Your task to perform on an android device: install app "AliExpress" Image 0: 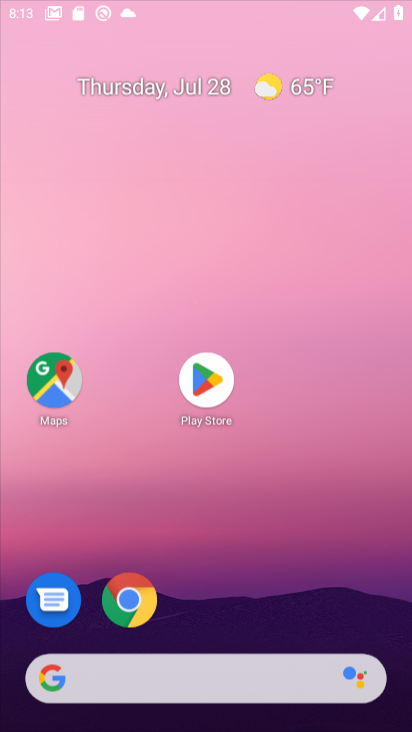
Step 0: press home button
Your task to perform on an android device: install app "AliExpress" Image 1: 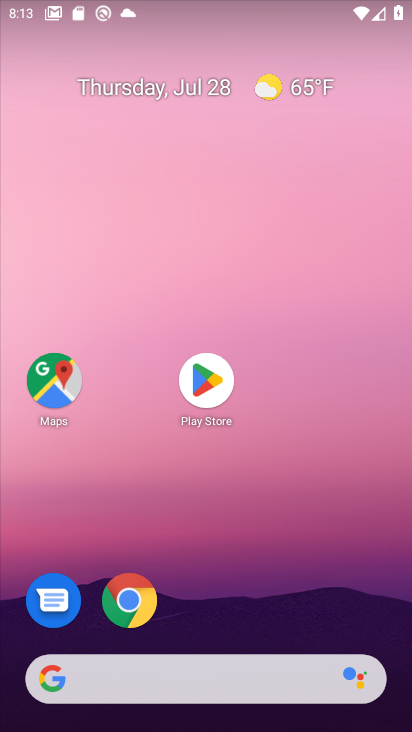
Step 1: click (199, 375)
Your task to perform on an android device: install app "AliExpress" Image 2: 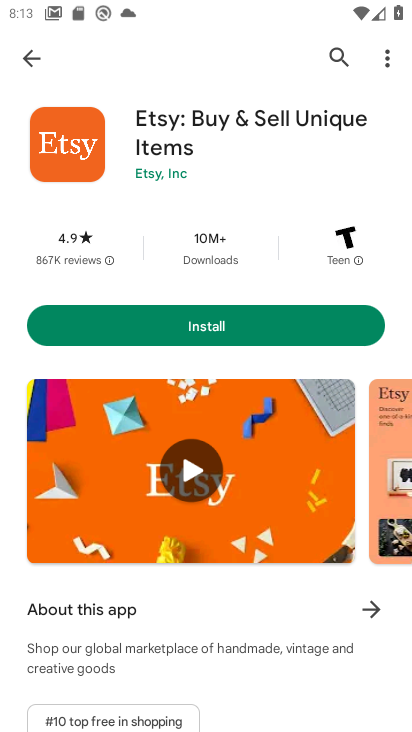
Step 2: click (334, 44)
Your task to perform on an android device: install app "AliExpress" Image 3: 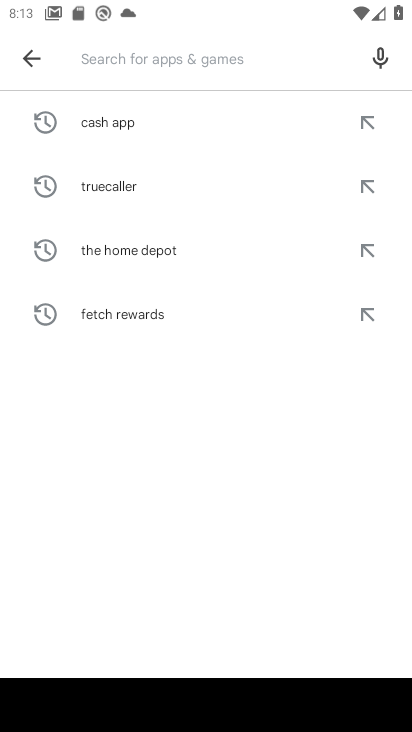
Step 3: click (200, 62)
Your task to perform on an android device: install app "AliExpress" Image 4: 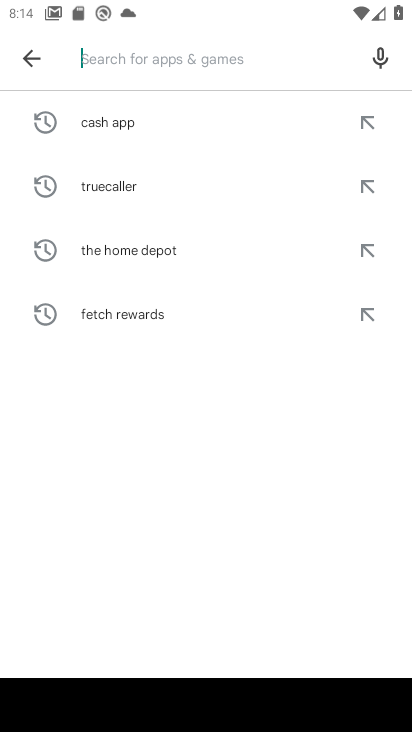
Step 4: type "AliExpress"
Your task to perform on an android device: install app "AliExpress" Image 5: 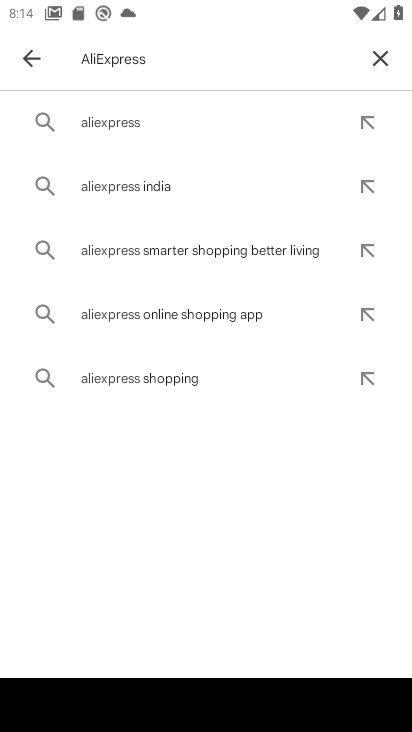
Step 5: click (117, 111)
Your task to perform on an android device: install app "AliExpress" Image 6: 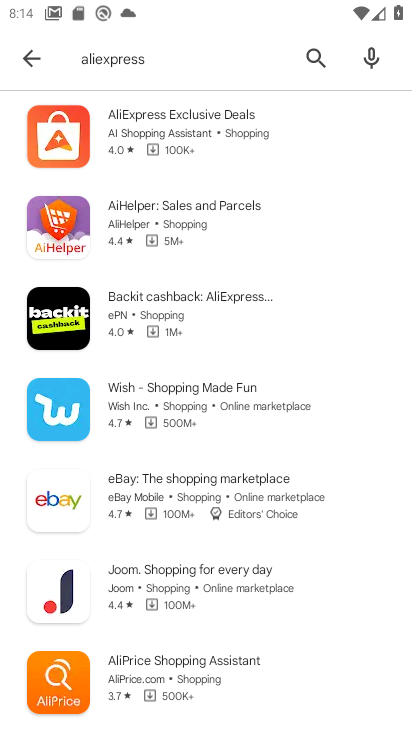
Step 6: click (210, 128)
Your task to perform on an android device: install app "AliExpress" Image 7: 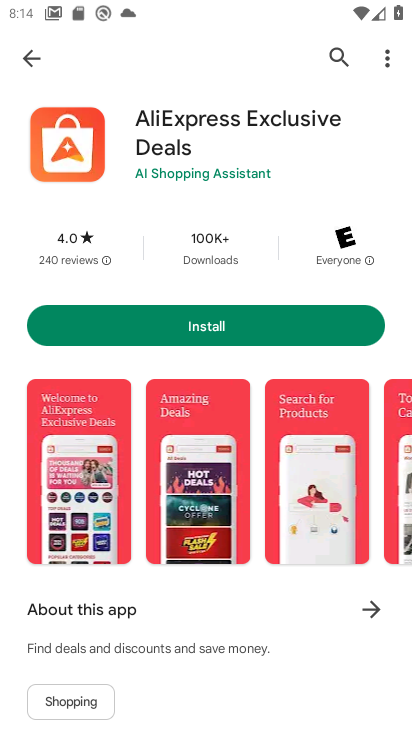
Step 7: click (208, 321)
Your task to perform on an android device: install app "AliExpress" Image 8: 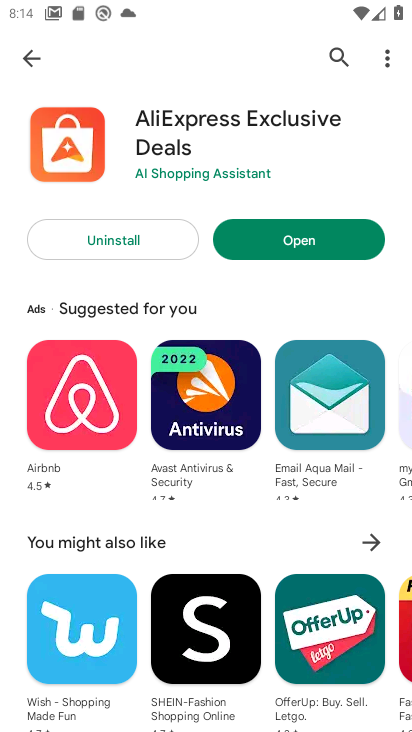
Step 8: task complete